Your task to perform on an android device: Open the web browser Image 0: 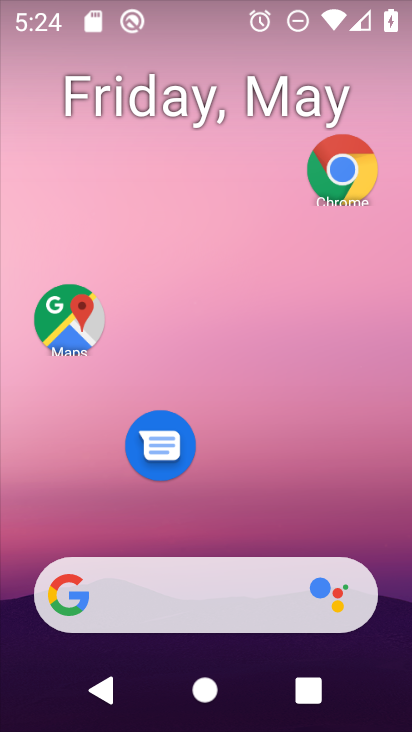
Step 0: click (336, 182)
Your task to perform on an android device: Open the web browser Image 1: 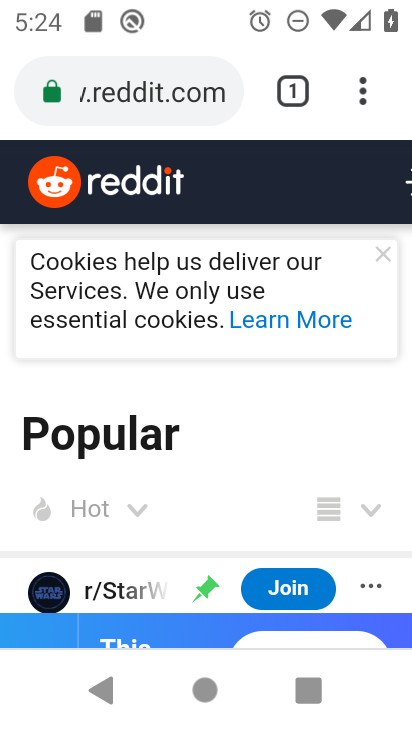
Step 1: task complete